Your task to perform on an android device: Open settings on Google Maps Image 0: 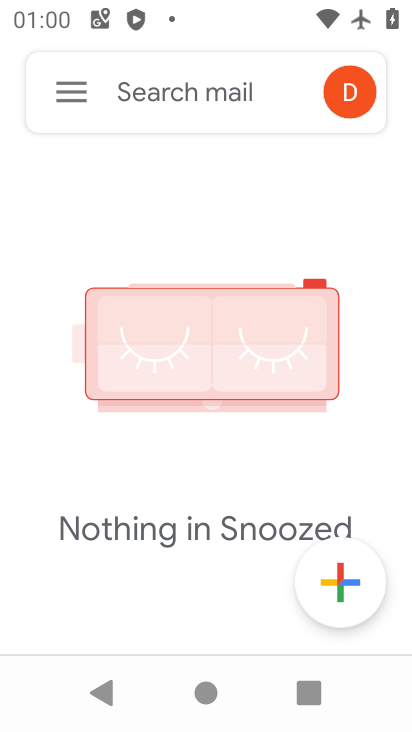
Step 0: drag from (223, 509) to (265, 168)
Your task to perform on an android device: Open settings on Google Maps Image 1: 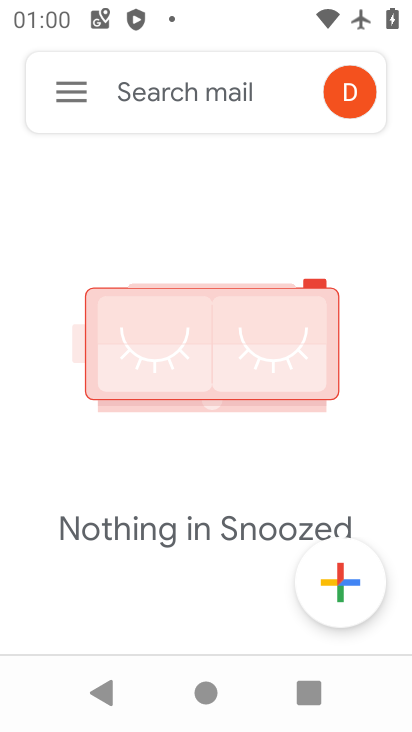
Step 1: press home button
Your task to perform on an android device: Open settings on Google Maps Image 2: 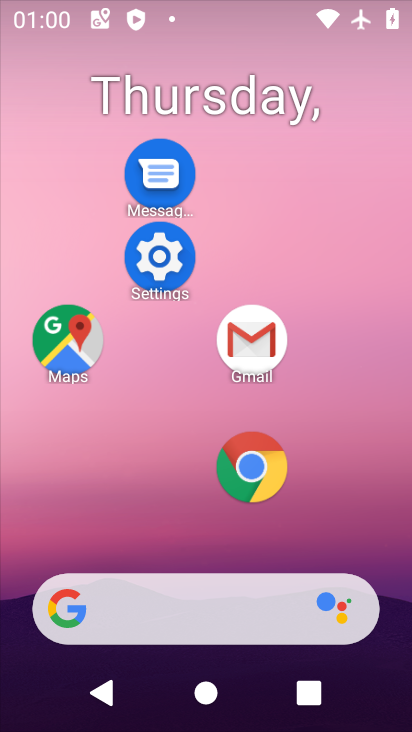
Step 2: drag from (189, 538) to (230, 133)
Your task to perform on an android device: Open settings on Google Maps Image 3: 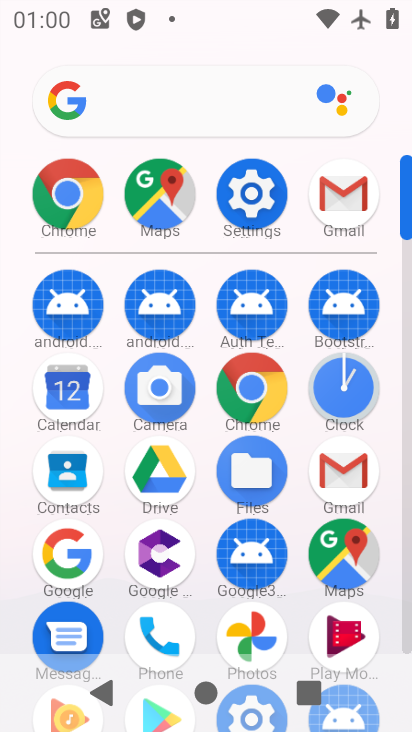
Step 3: click (350, 570)
Your task to perform on an android device: Open settings on Google Maps Image 4: 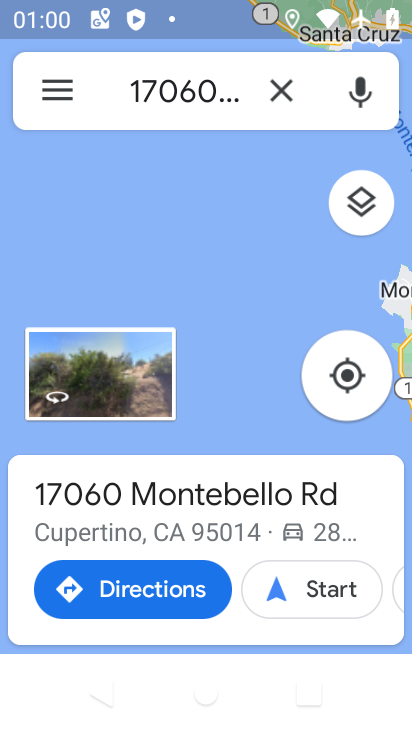
Step 4: click (59, 91)
Your task to perform on an android device: Open settings on Google Maps Image 5: 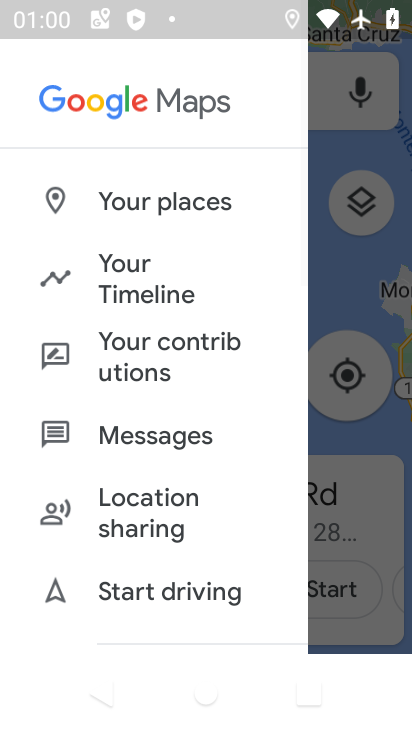
Step 5: drag from (192, 565) to (238, 107)
Your task to perform on an android device: Open settings on Google Maps Image 6: 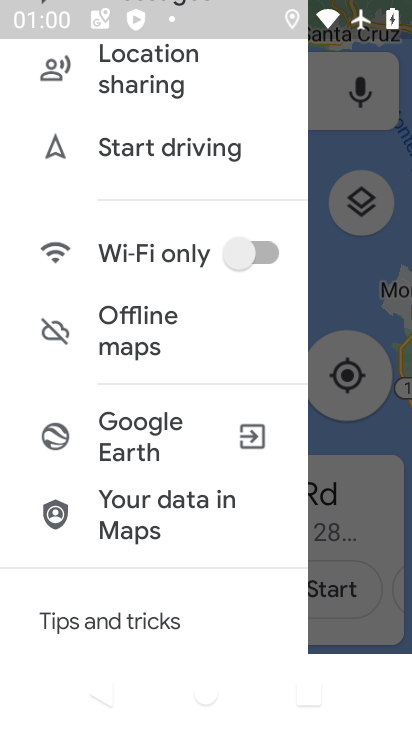
Step 6: drag from (152, 568) to (220, 165)
Your task to perform on an android device: Open settings on Google Maps Image 7: 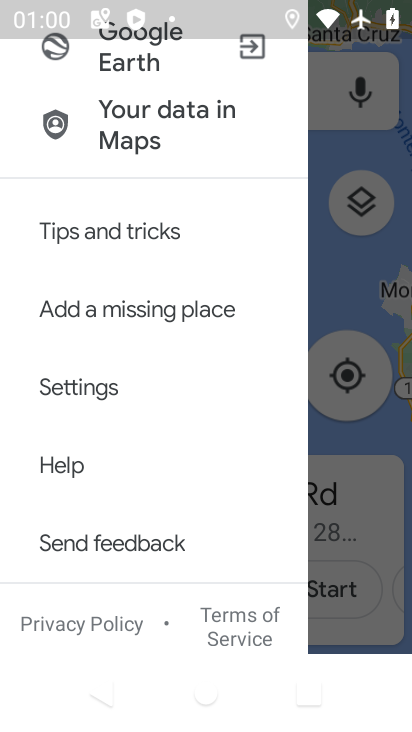
Step 7: click (114, 387)
Your task to perform on an android device: Open settings on Google Maps Image 8: 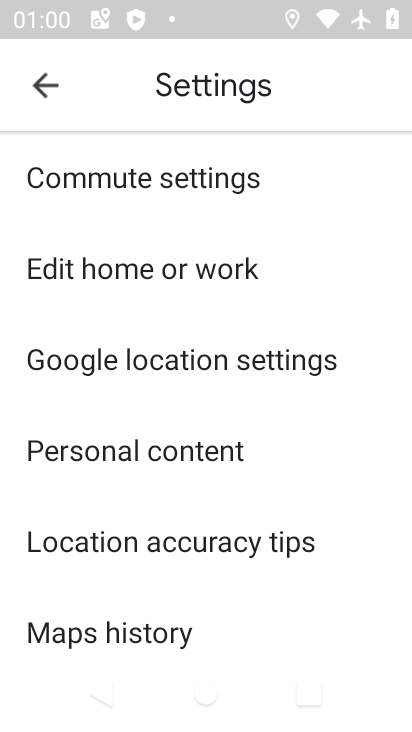
Step 8: task complete